Your task to perform on an android device: Find coffee shops on Maps Image 0: 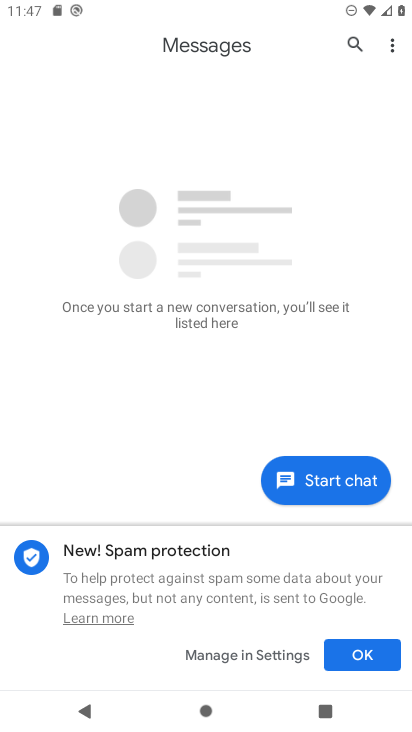
Step 0: press home button
Your task to perform on an android device: Find coffee shops on Maps Image 1: 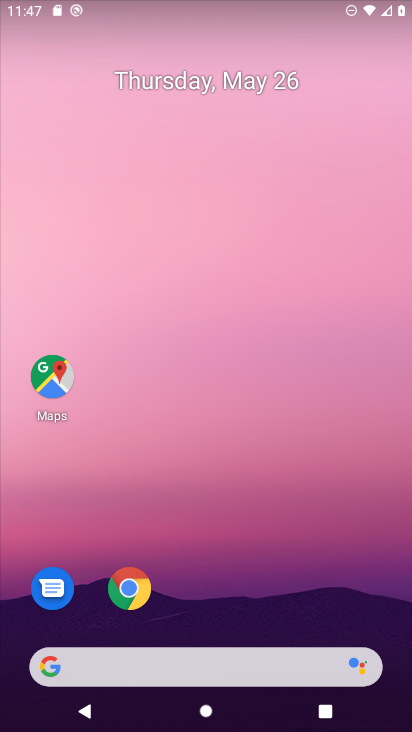
Step 1: click (50, 377)
Your task to perform on an android device: Find coffee shops on Maps Image 2: 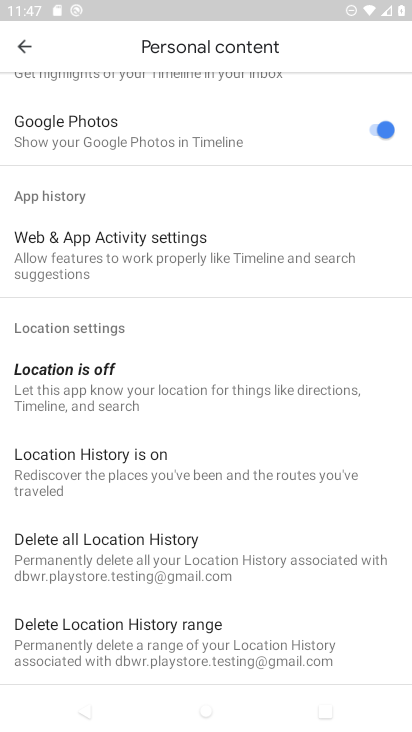
Step 2: press back button
Your task to perform on an android device: Find coffee shops on Maps Image 3: 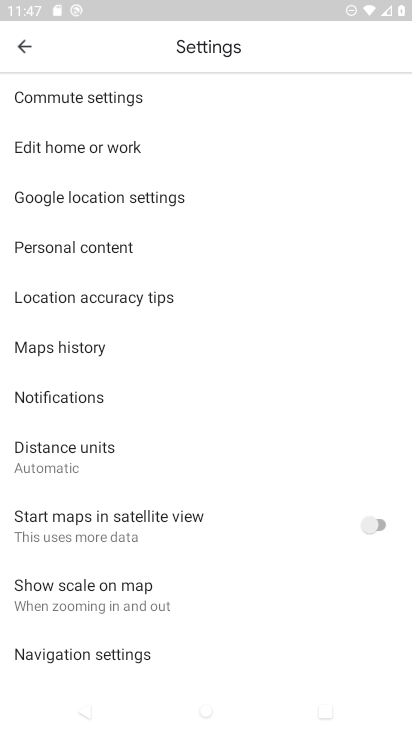
Step 3: press back button
Your task to perform on an android device: Find coffee shops on Maps Image 4: 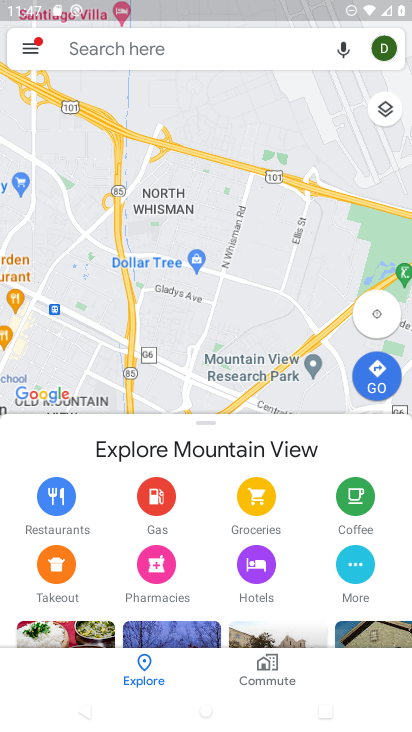
Step 4: click (124, 40)
Your task to perform on an android device: Find coffee shops on Maps Image 5: 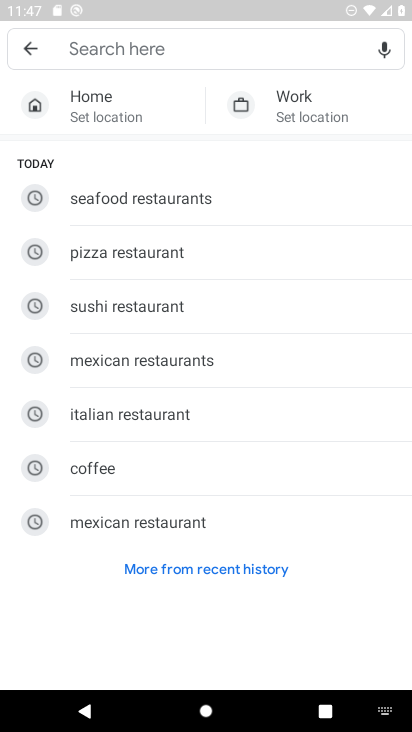
Step 5: type "coffee shop"
Your task to perform on an android device: Find coffee shops on Maps Image 6: 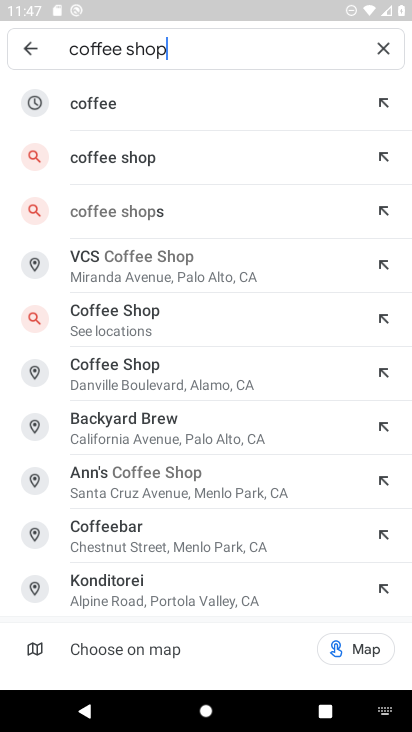
Step 6: click (116, 144)
Your task to perform on an android device: Find coffee shops on Maps Image 7: 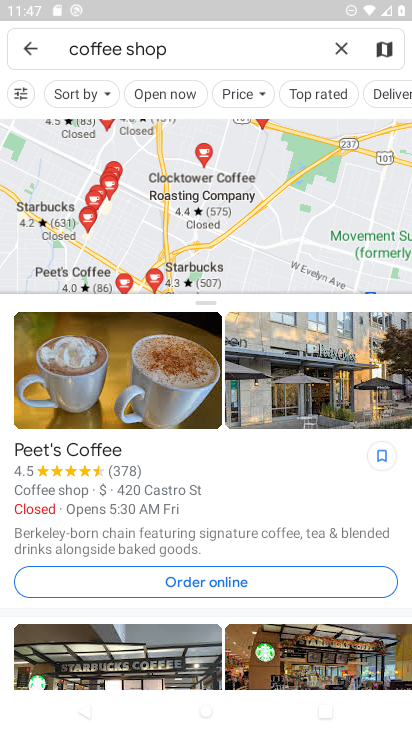
Step 7: task complete